Your task to perform on an android device: Open location settings Image 0: 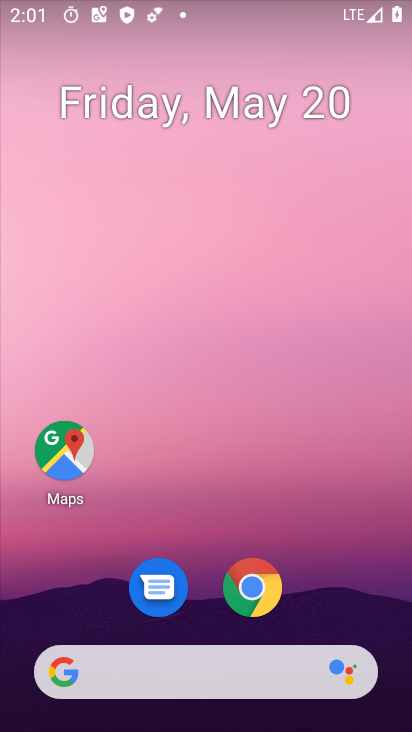
Step 0: drag from (315, 619) to (262, 94)
Your task to perform on an android device: Open location settings Image 1: 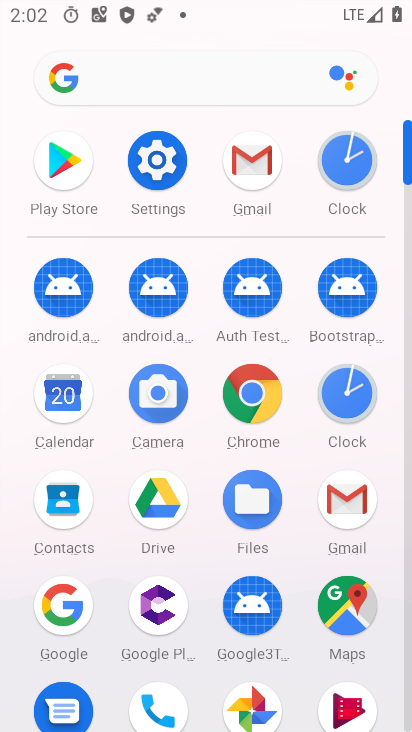
Step 1: click (165, 157)
Your task to perform on an android device: Open location settings Image 2: 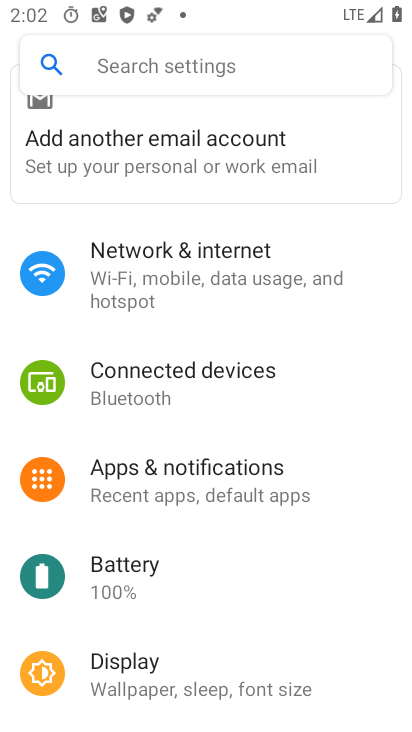
Step 2: drag from (175, 542) to (171, 66)
Your task to perform on an android device: Open location settings Image 3: 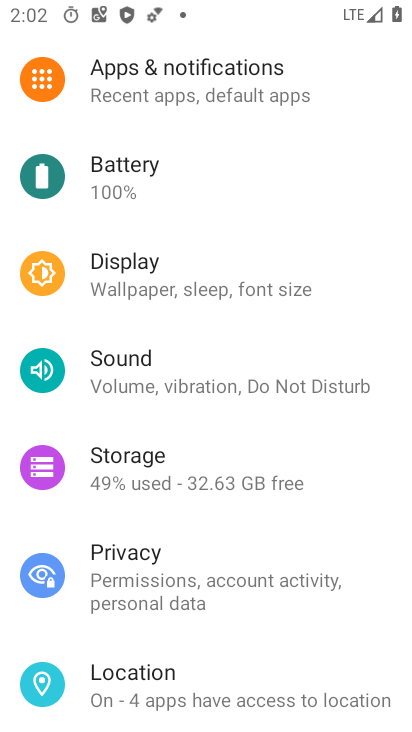
Step 3: click (149, 707)
Your task to perform on an android device: Open location settings Image 4: 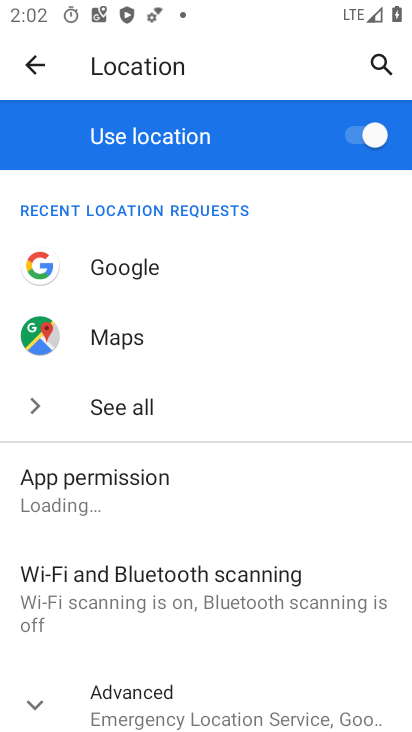
Step 4: task complete